Your task to perform on an android device: Open calendar and show me the fourth week of next month Image 0: 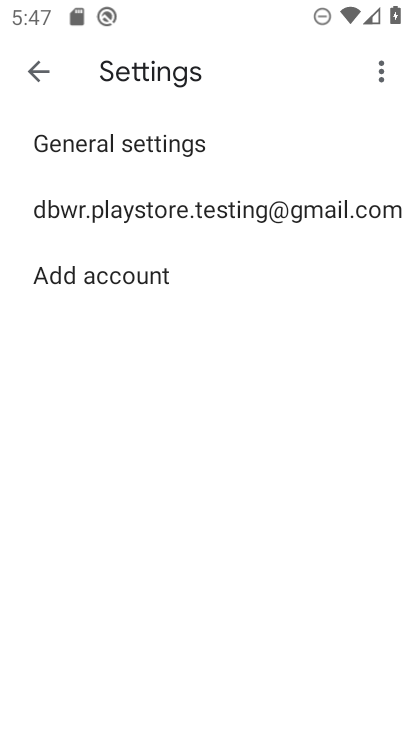
Step 0: press home button
Your task to perform on an android device: Open calendar and show me the fourth week of next month Image 1: 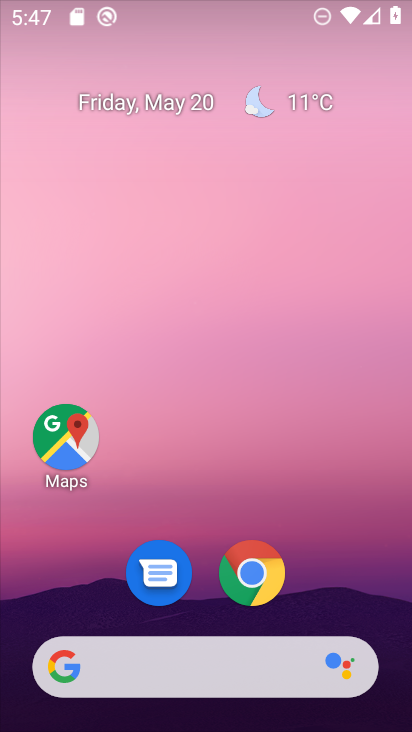
Step 1: drag from (307, 446) to (181, 62)
Your task to perform on an android device: Open calendar and show me the fourth week of next month Image 2: 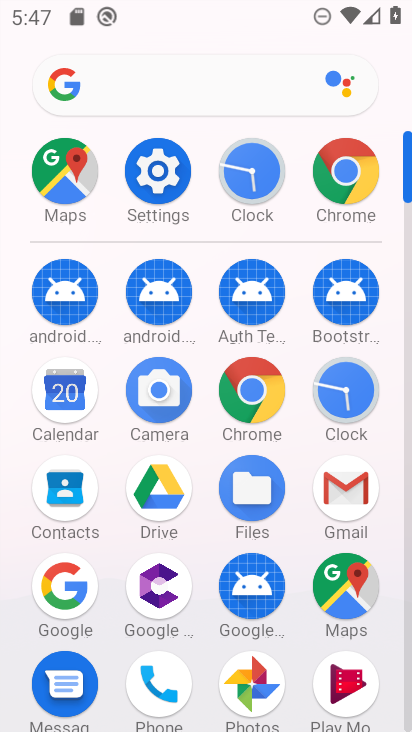
Step 2: click (50, 395)
Your task to perform on an android device: Open calendar and show me the fourth week of next month Image 3: 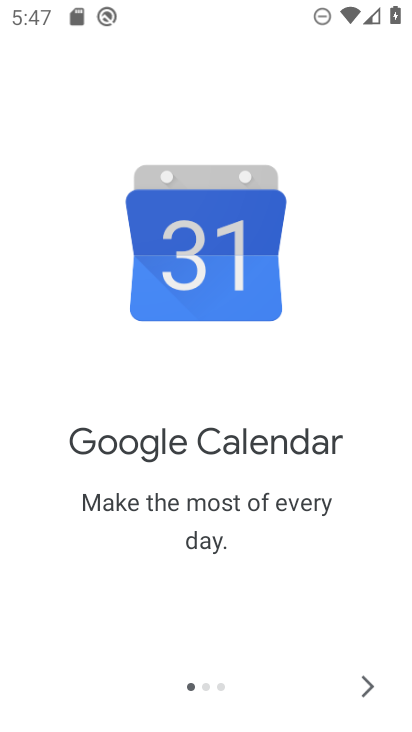
Step 3: click (364, 682)
Your task to perform on an android device: Open calendar and show me the fourth week of next month Image 4: 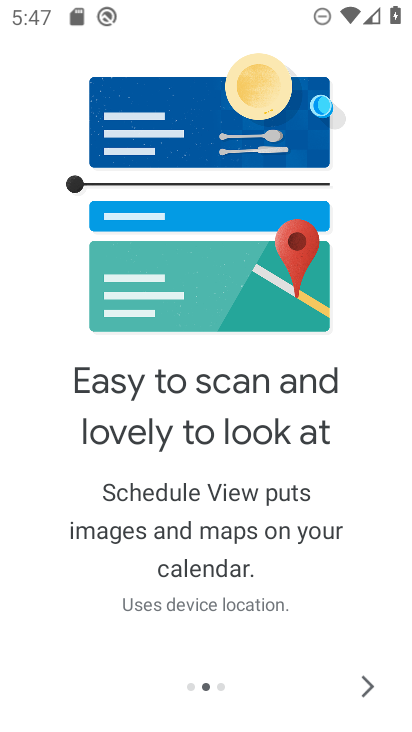
Step 4: click (370, 679)
Your task to perform on an android device: Open calendar and show me the fourth week of next month Image 5: 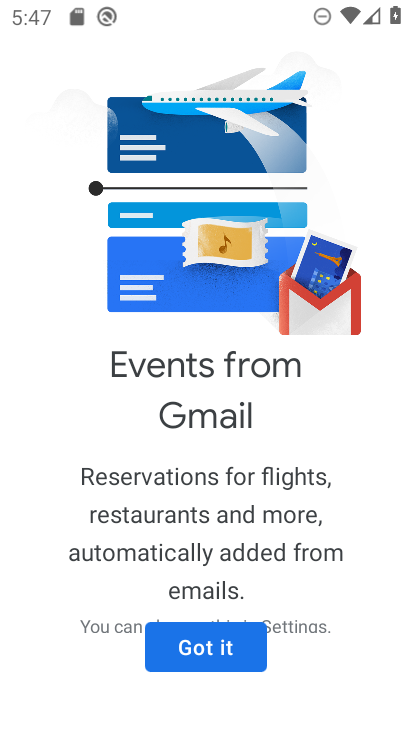
Step 5: click (228, 656)
Your task to perform on an android device: Open calendar and show me the fourth week of next month Image 6: 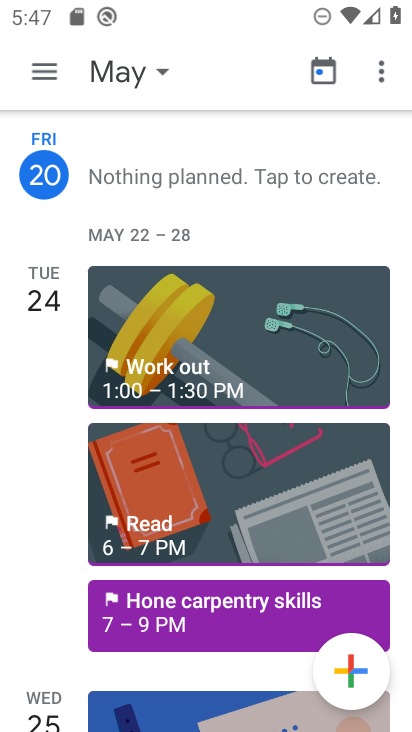
Step 6: click (161, 71)
Your task to perform on an android device: Open calendar and show me the fourth week of next month Image 7: 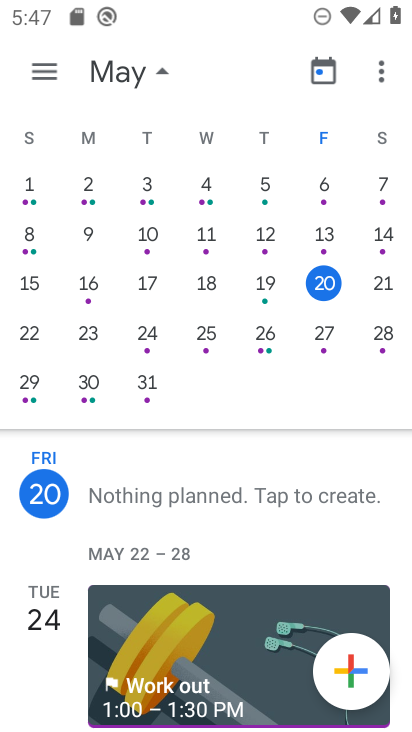
Step 7: drag from (206, 244) to (3, 266)
Your task to perform on an android device: Open calendar and show me the fourth week of next month Image 8: 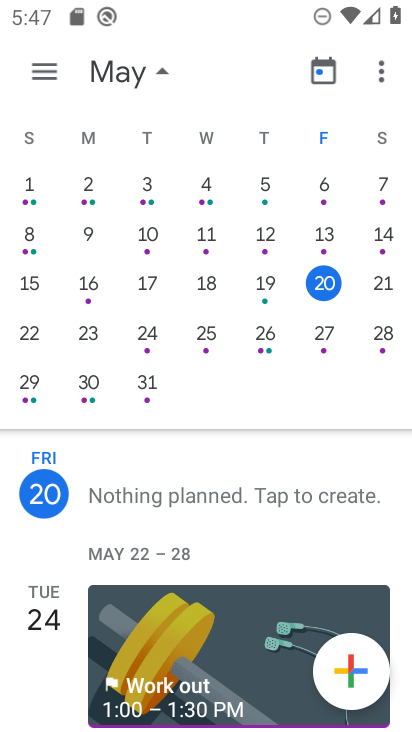
Step 8: click (35, 332)
Your task to perform on an android device: Open calendar and show me the fourth week of next month Image 9: 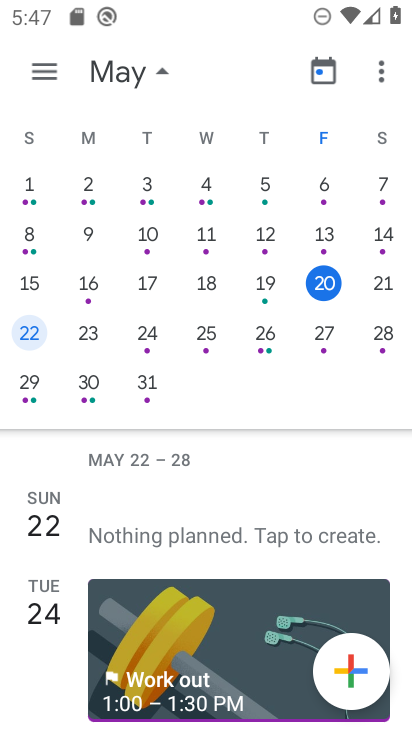
Step 9: drag from (289, 244) to (15, 303)
Your task to perform on an android device: Open calendar and show me the fourth week of next month Image 10: 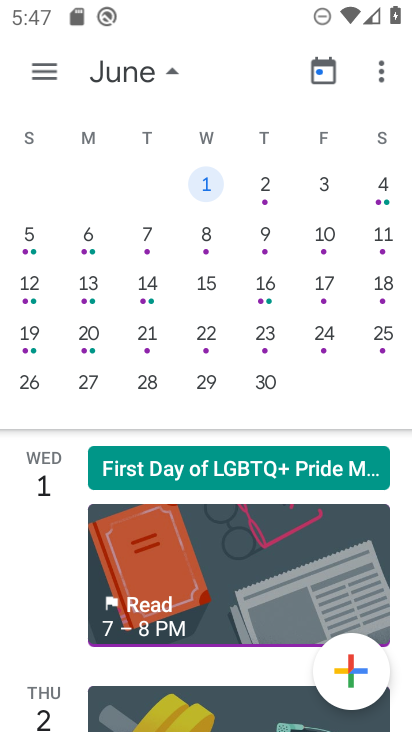
Step 10: click (34, 331)
Your task to perform on an android device: Open calendar and show me the fourth week of next month Image 11: 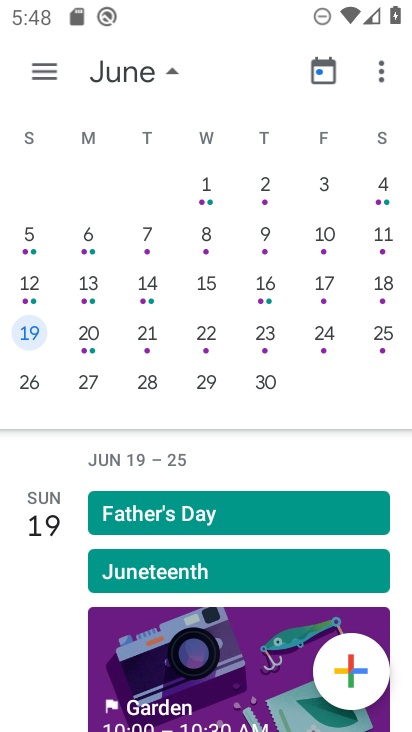
Step 11: task complete